Your task to perform on an android device: Open CNN.com Image 0: 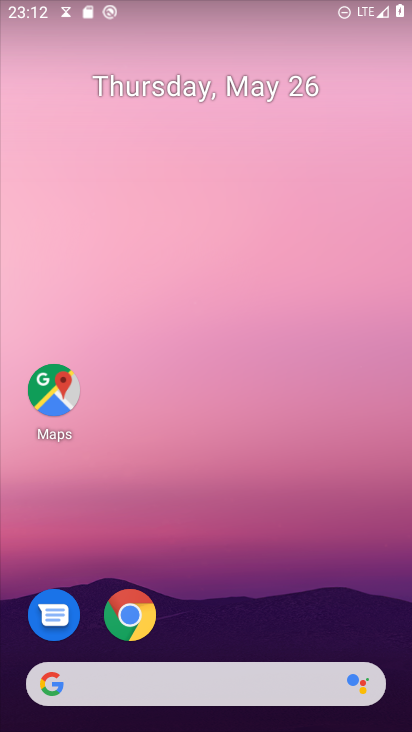
Step 0: click (122, 600)
Your task to perform on an android device: Open CNN.com Image 1: 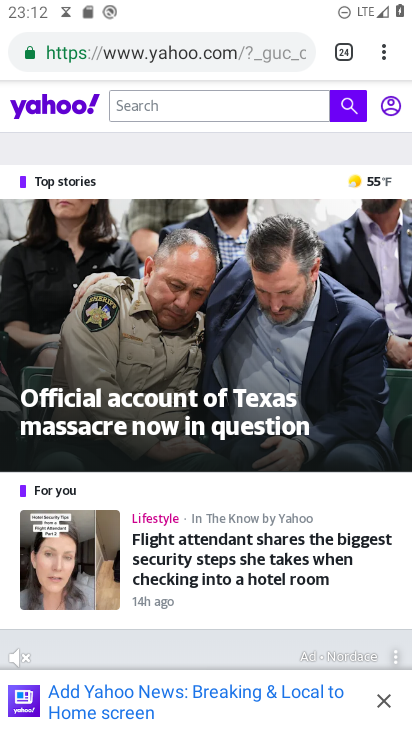
Step 1: click (383, 48)
Your task to perform on an android device: Open CNN.com Image 2: 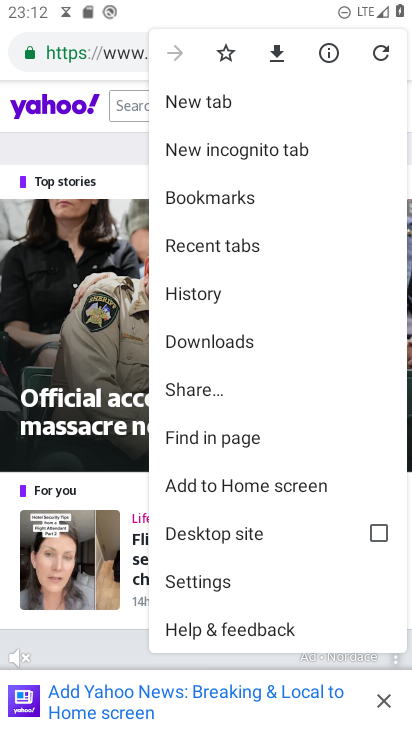
Step 2: click (214, 117)
Your task to perform on an android device: Open CNN.com Image 3: 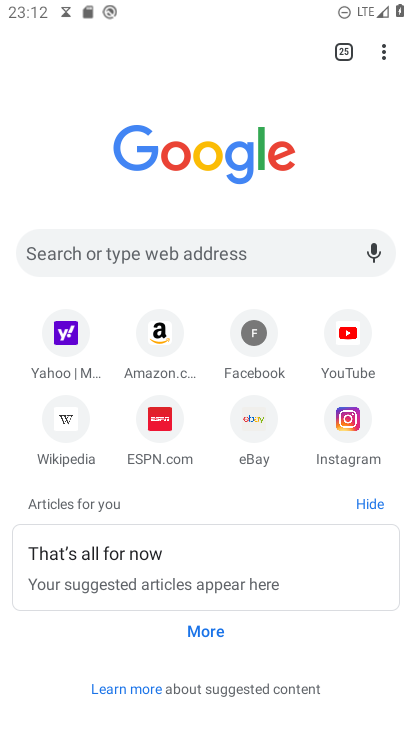
Step 3: click (187, 244)
Your task to perform on an android device: Open CNN.com Image 4: 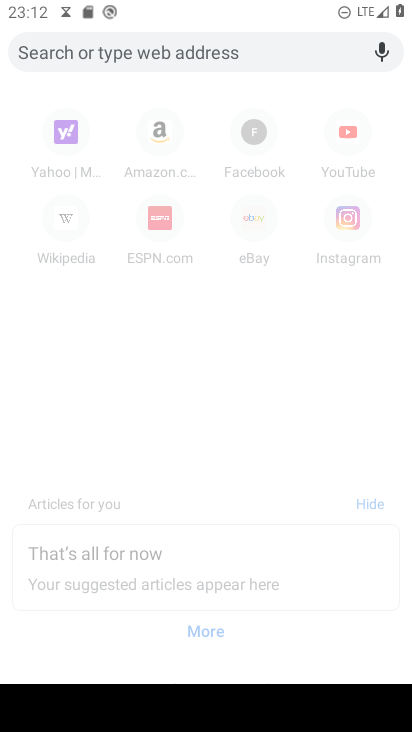
Step 4: type "CNN.com"
Your task to perform on an android device: Open CNN.com Image 5: 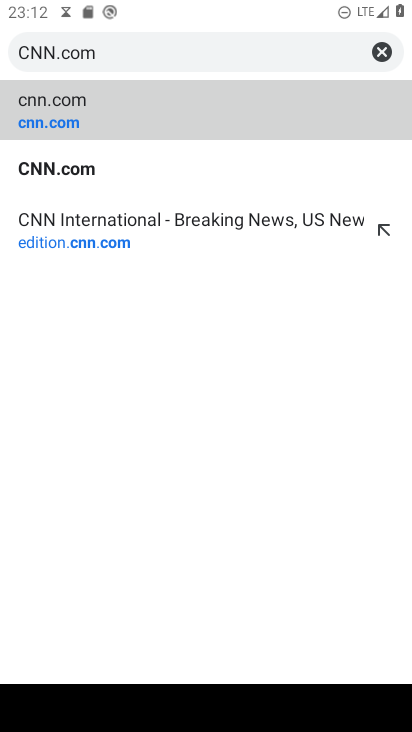
Step 5: click (230, 103)
Your task to perform on an android device: Open CNN.com Image 6: 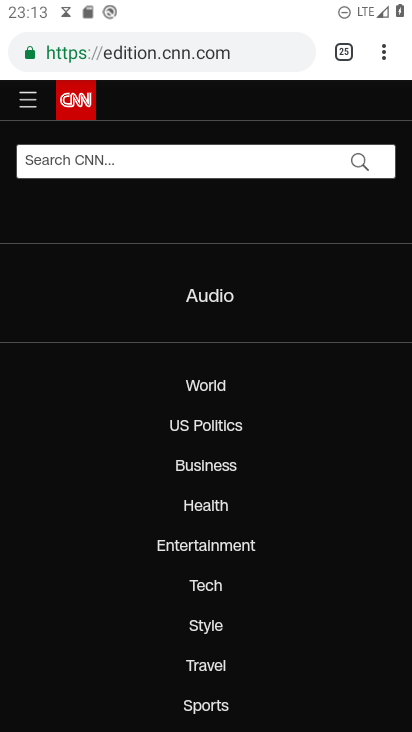
Step 6: task complete